Your task to perform on an android device: turn on airplane mode Image 0: 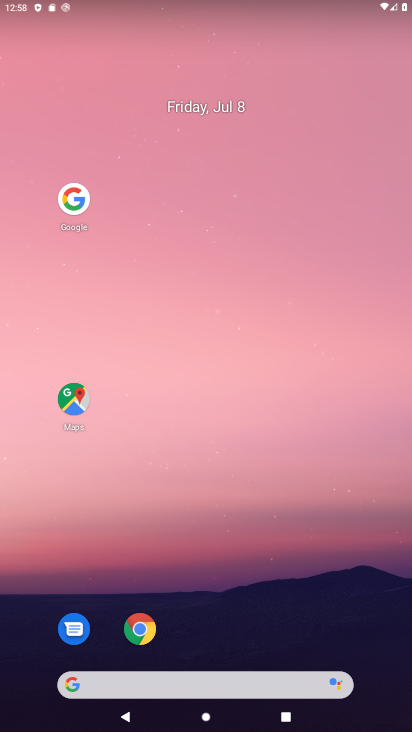
Step 0: drag from (221, 573) to (149, 51)
Your task to perform on an android device: turn on airplane mode Image 1: 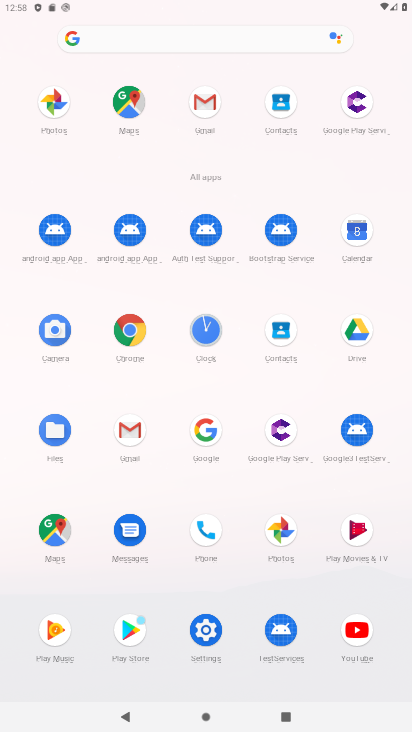
Step 1: click (216, 624)
Your task to perform on an android device: turn on airplane mode Image 2: 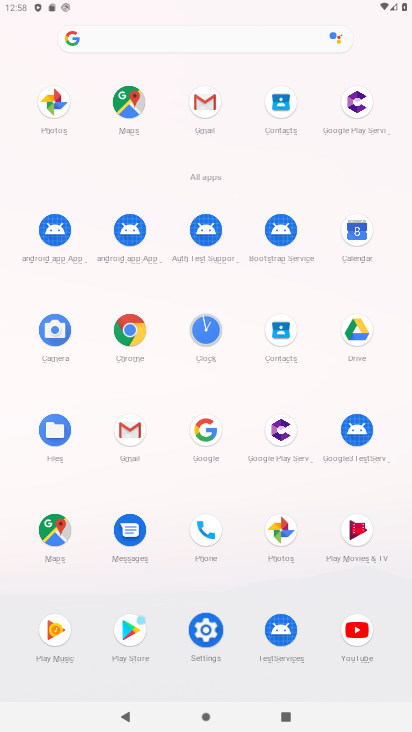
Step 2: click (208, 624)
Your task to perform on an android device: turn on airplane mode Image 3: 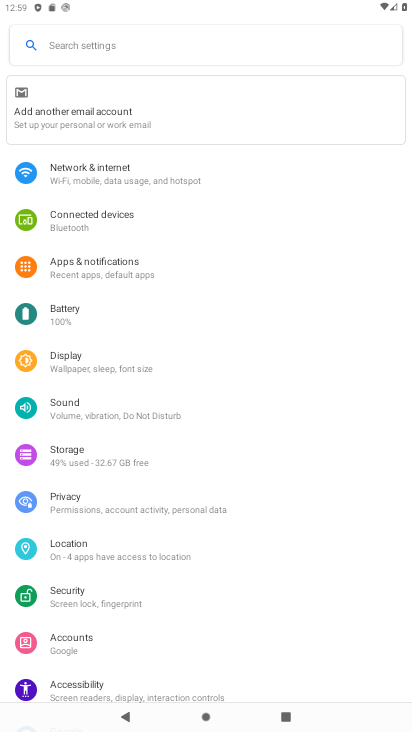
Step 3: click (103, 176)
Your task to perform on an android device: turn on airplane mode Image 4: 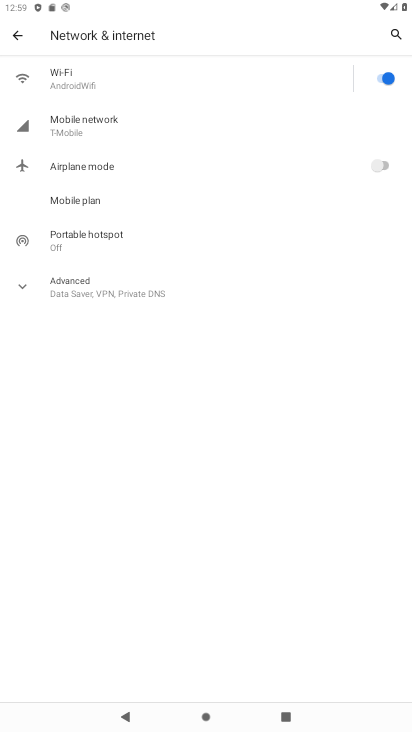
Step 4: click (103, 183)
Your task to perform on an android device: turn on airplane mode Image 5: 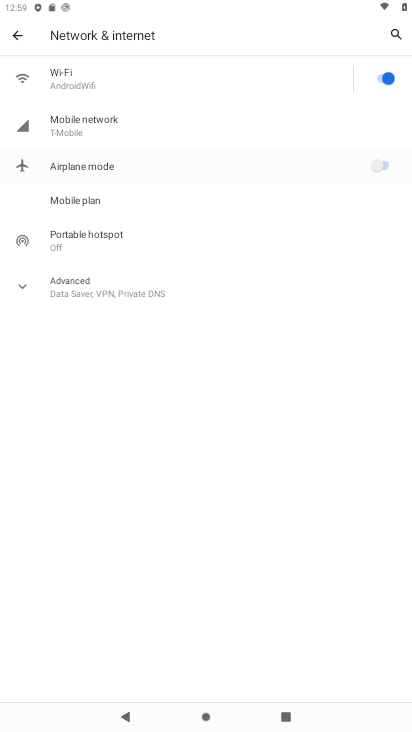
Step 5: click (102, 179)
Your task to perform on an android device: turn on airplane mode Image 6: 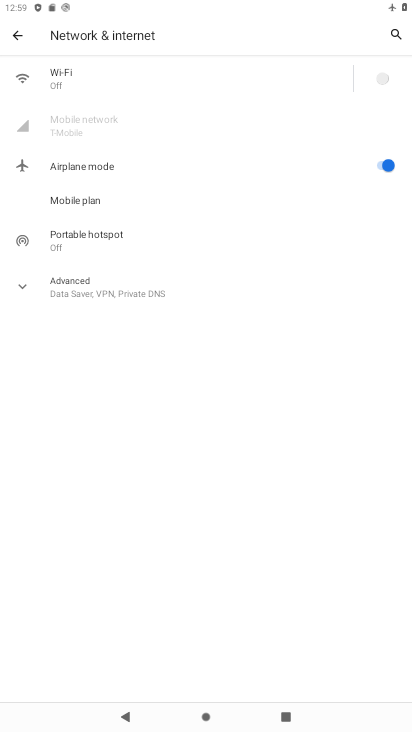
Step 6: click (102, 179)
Your task to perform on an android device: turn on airplane mode Image 7: 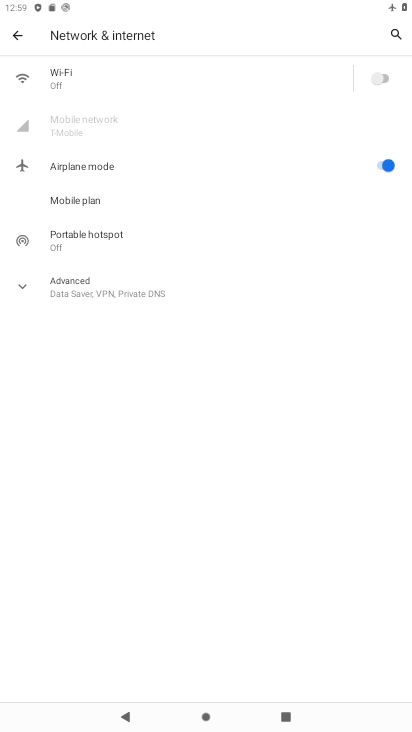
Step 7: click (85, 156)
Your task to perform on an android device: turn on airplane mode Image 8: 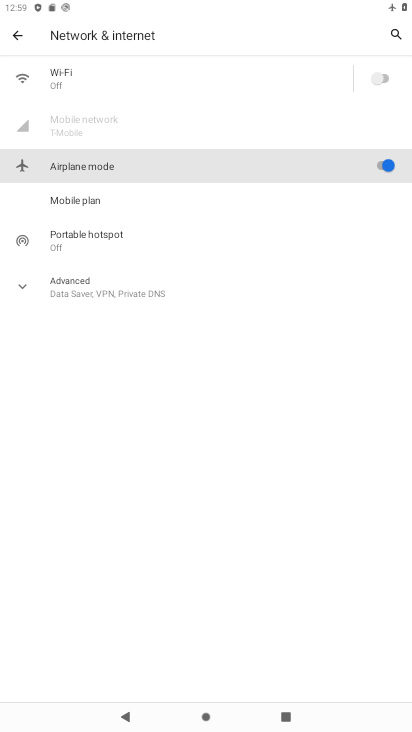
Step 8: click (83, 160)
Your task to perform on an android device: turn on airplane mode Image 9: 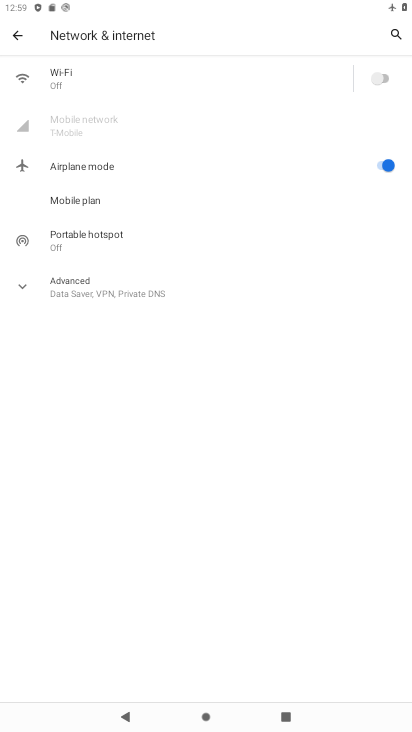
Step 9: click (83, 160)
Your task to perform on an android device: turn on airplane mode Image 10: 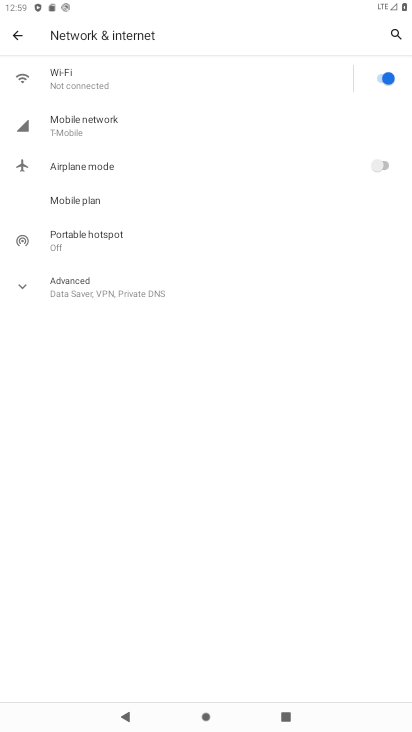
Step 10: click (376, 164)
Your task to perform on an android device: turn on airplane mode Image 11: 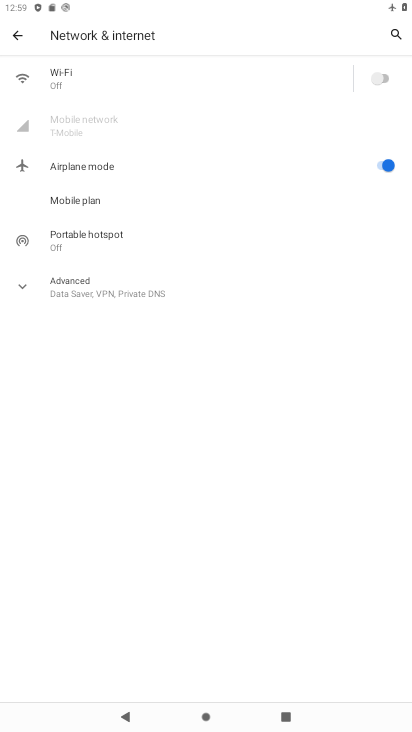
Step 11: task complete